Your task to perform on an android device: change notifications settings Image 0: 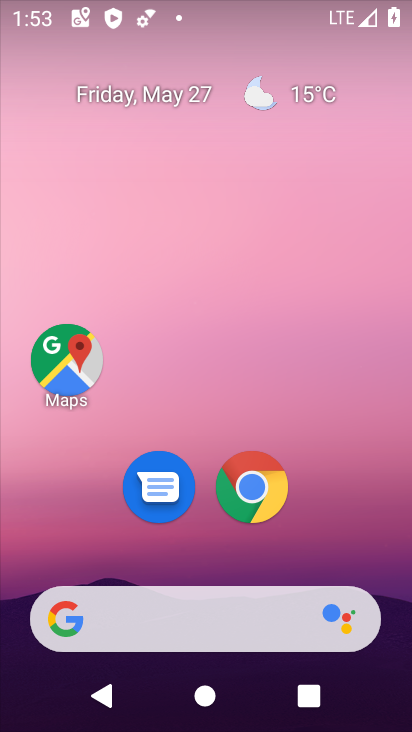
Step 0: drag from (308, 537) to (379, 146)
Your task to perform on an android device: change notifications settings Image 1: 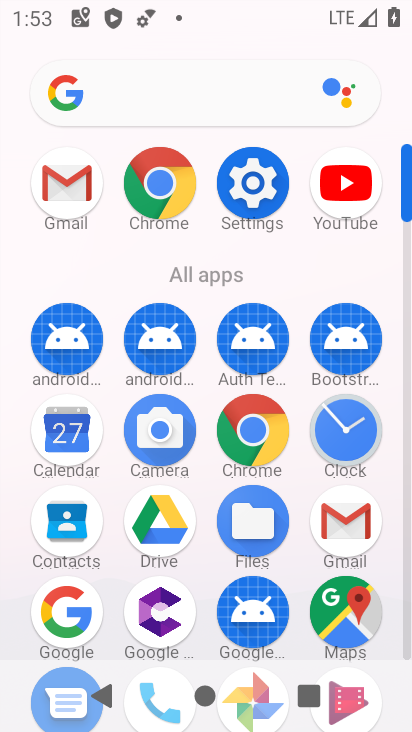
Step 1: click (259, 189)
Your task to perform on an android device: change notifications settings Image 2: 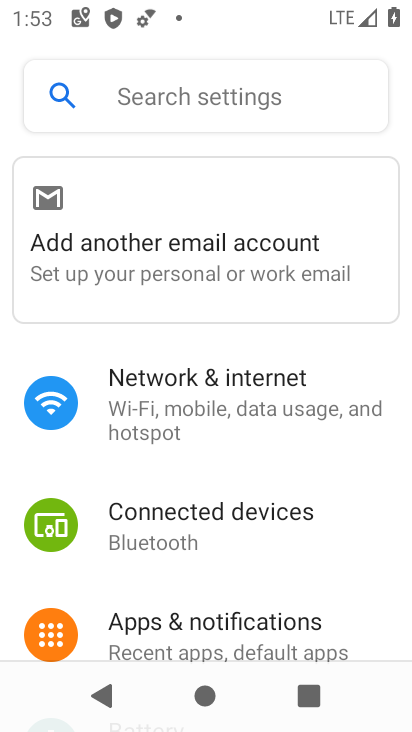
Step 2: drag from (249, 480) to (257, 152)
Your task to perform on an android device: change notifications settings Image 3: 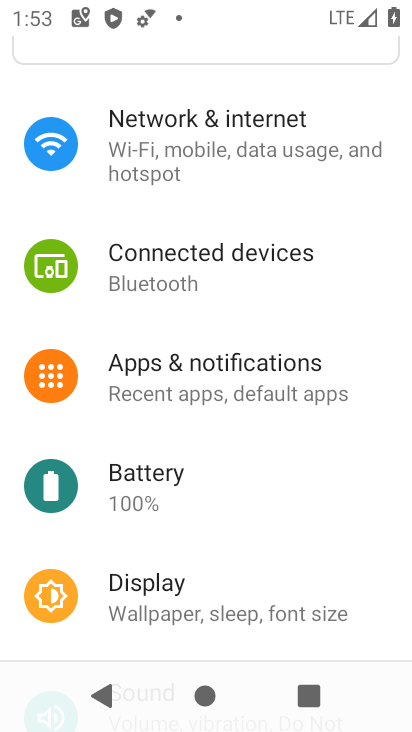
Step 3: click (233, 365)
Your task to perform on an android device: change notifications settings Image 4: 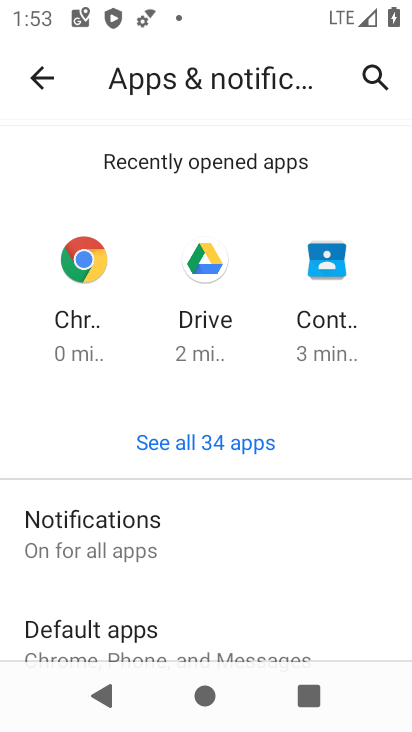
Step 4: drag from (94, 573) to (221, 180)
Your task to perform on an android device: change notifications settings Image 5: 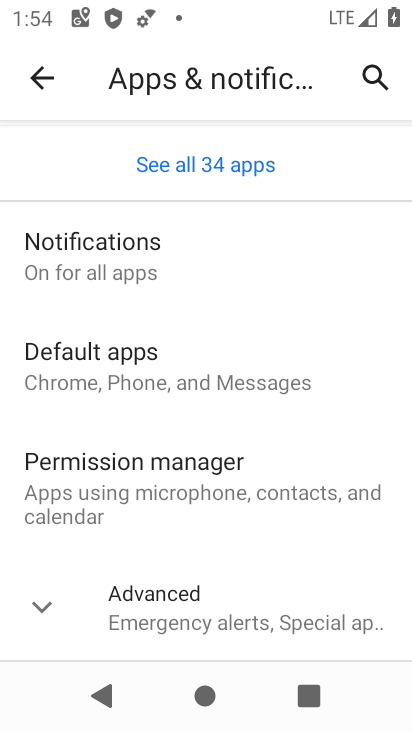
Step 5: click (205, 260)
Your task to perform on an android device: change notifications settings Image 6: 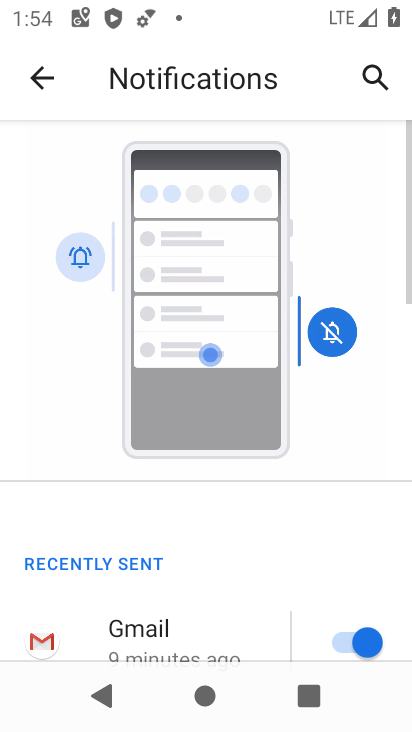
Step 6: drag from (216, 544) to (360, 133)
Your task to perform on an android device: change notifications settings Image 7: 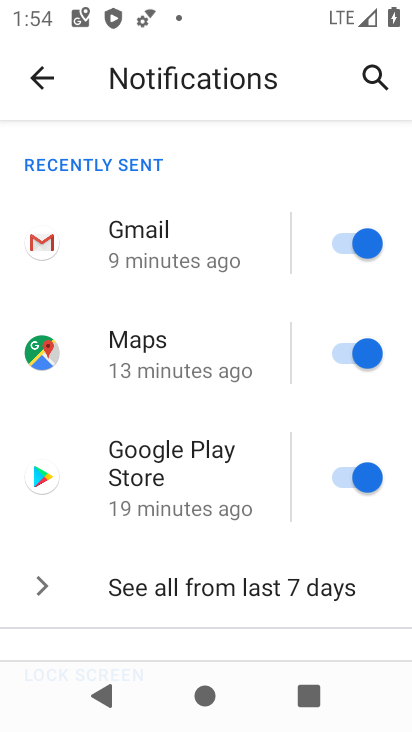
Step 7: drag from (142, 557) to (302, 173)
Your task to perform on an android device: change notifications settings Image 8: 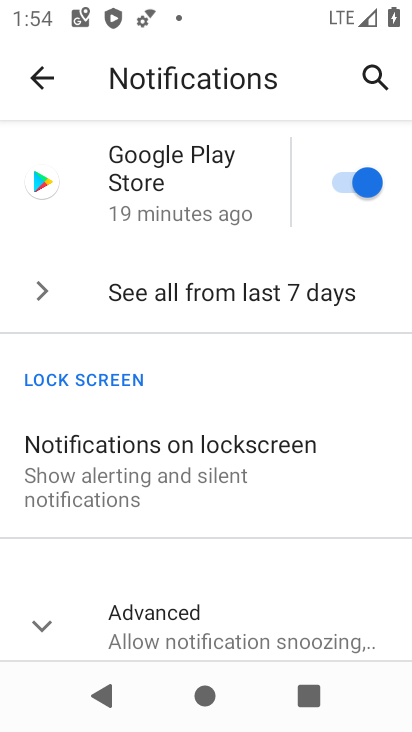
Step 8: drag from (89, 601) to (314, 266)
Your task to perform on an android device: change notifications settings Image 9: 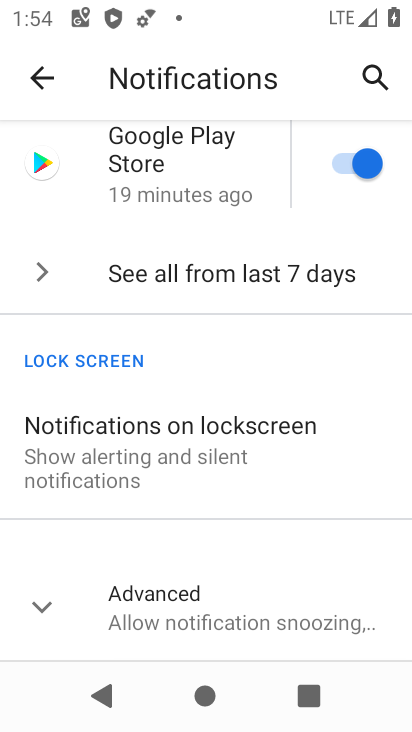
Step 9: click (138, 590)
Your task to perform on an android device: change notifications settings Image 10: 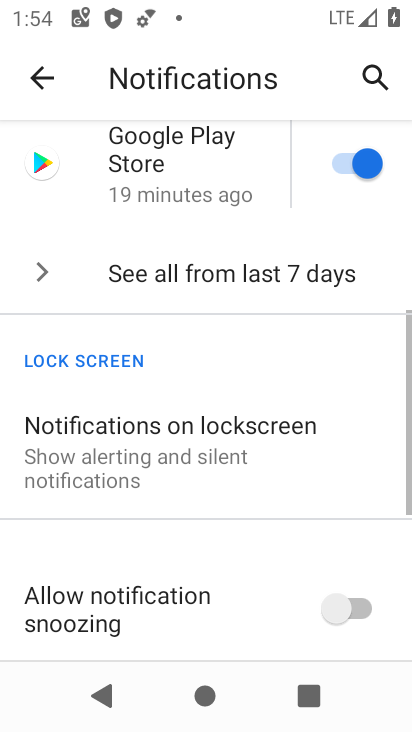
Step 10: drag from (170, 559) to (317, 241)
Your task to perform on an android device: change notifications settings Image 11: 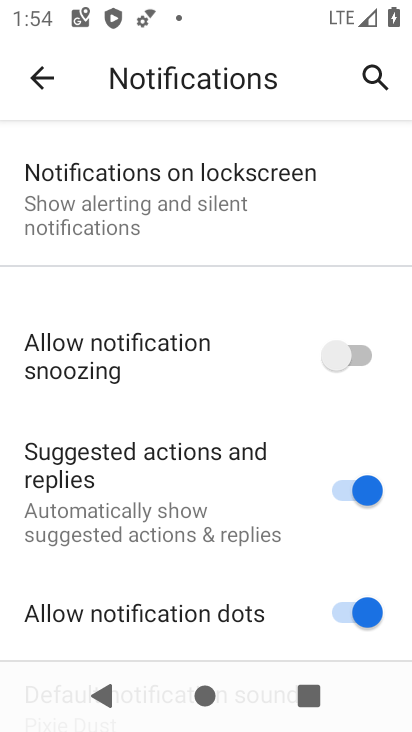
Step 11: drag from (137, 583) to (298, 228)
Your task to perform on an android device: change notifications settings Image 12: 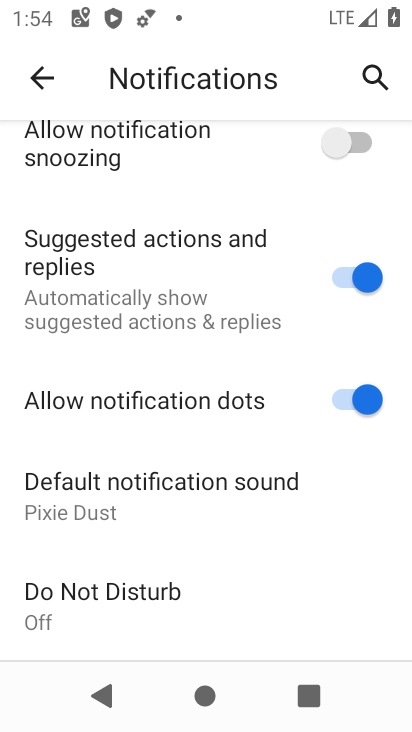
Step 12: click (355, 157)
Your task to perform on an android device: change notifications settings Image 13: 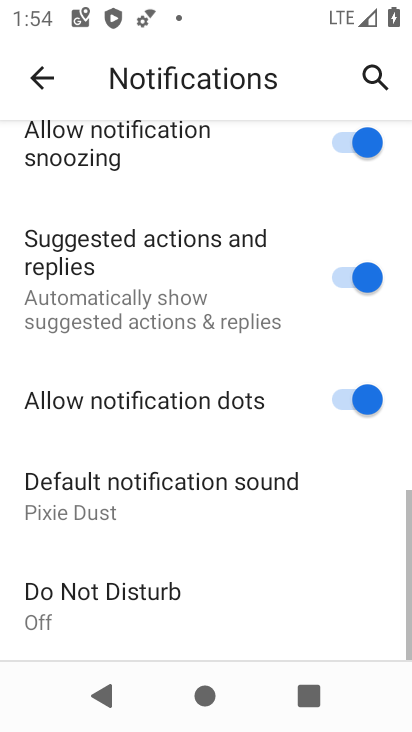
Step 13: task complete